Your task to perform on an android device: change the clock display to digital Image 0: 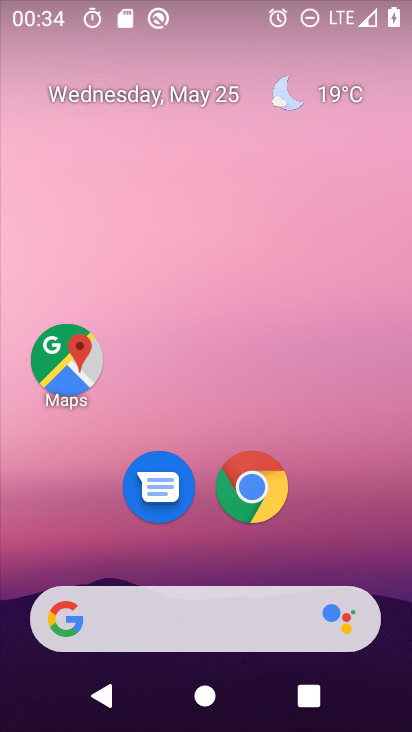
Step 0: drag from (354, 567) to (338, 1)
Your task to perform on an android device: change the clock display to digital Image 1: 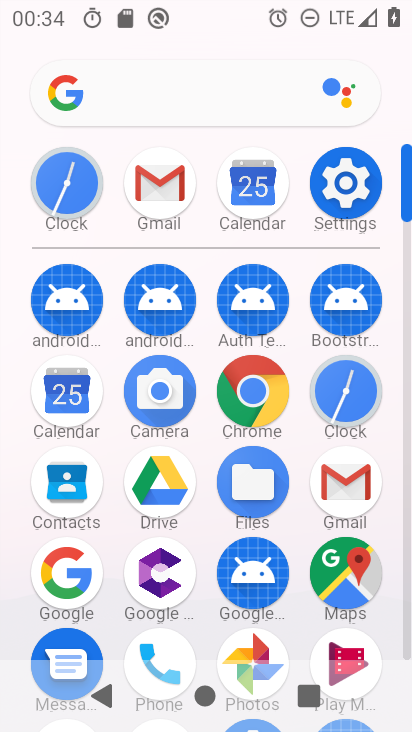
Step 1: click (350, 392)
Your task to perform on an android device: change the clock display to digital Image 2: 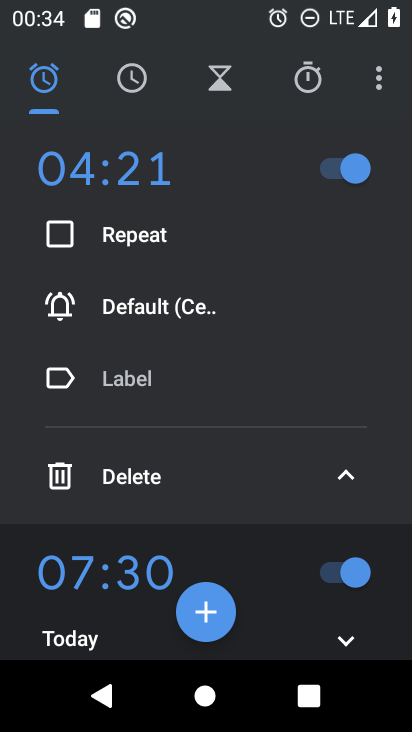
Step 2: click (377, 81)
Your task to perform on an android device: change the clock display to digital Image 3: 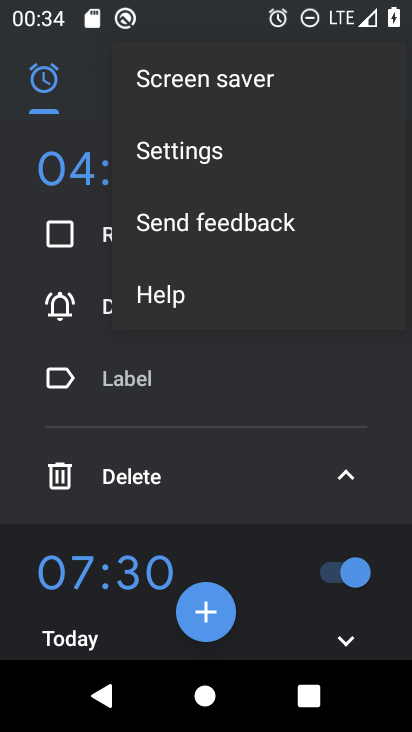
Step 3: click (179, 147)
Your task to perform on an android device: change the clock display to digital Image 4: 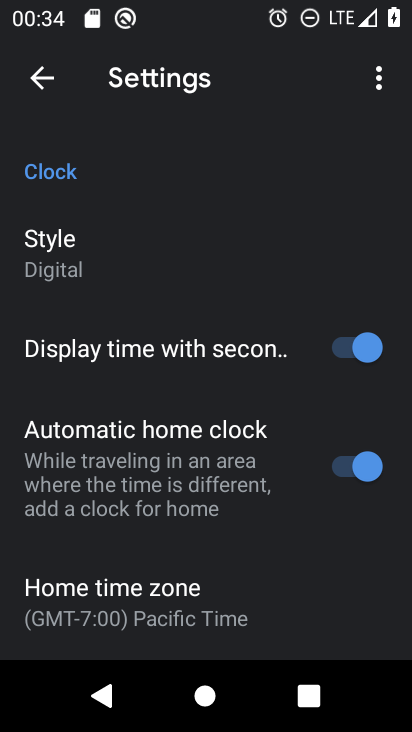
Step 4: task complete